Your task to perform on an android device: Find coffee shops on Maps Image 0: 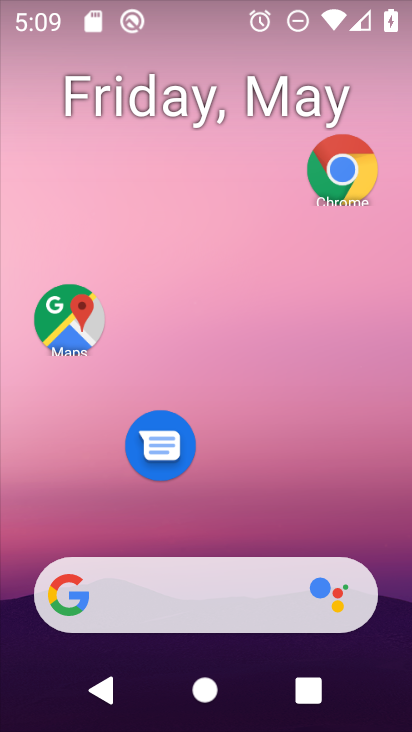
Step 0: click (406, 319)
Your task to perform on an android device: Find coffee shops on Maps Image 1: 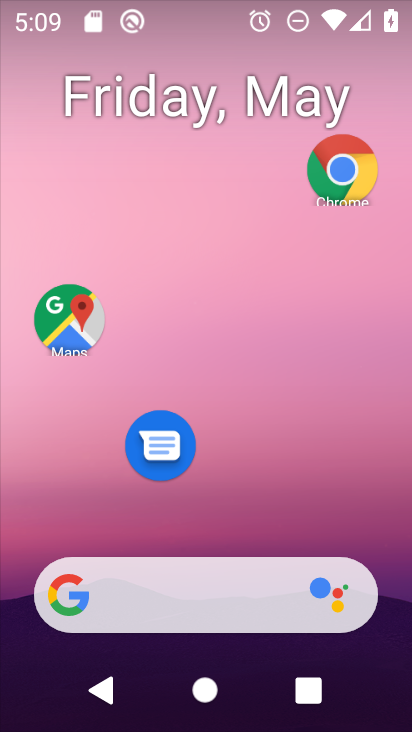
Step 1: drag from (220, 508) to (198, 12)
Your task to perform on an android device: Find coffee shops on Maps Image 2: 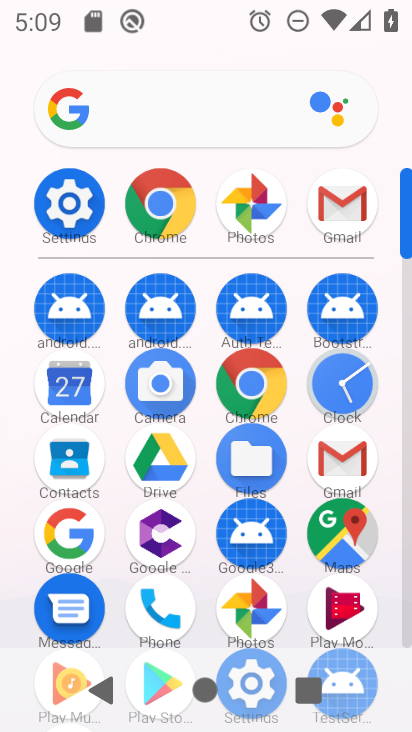
Step 2: click (343, 537)
Your task to perform on an android device: Find coffee shops on Maps Image 3: 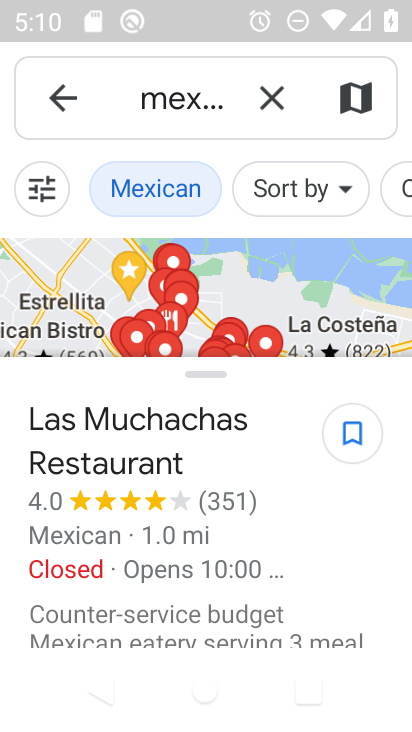
Step 3: click (263, 100)
Your task to perform on an android device: Find coffee shops on Maps Image 4: 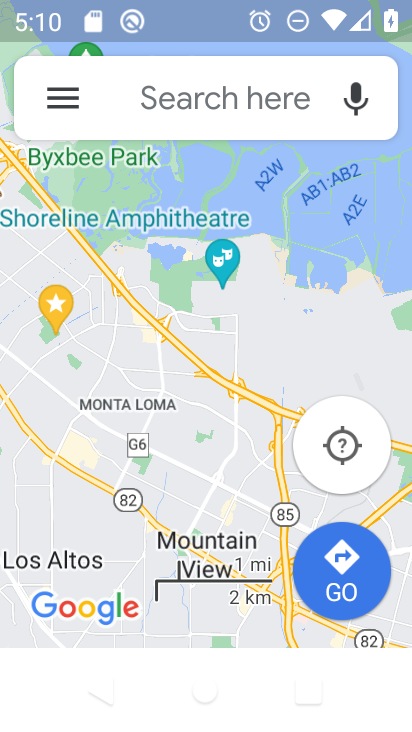
Step 4: click (210, 80)
Your task to perform on an android device: Find coffee shops on Maps Image 5: 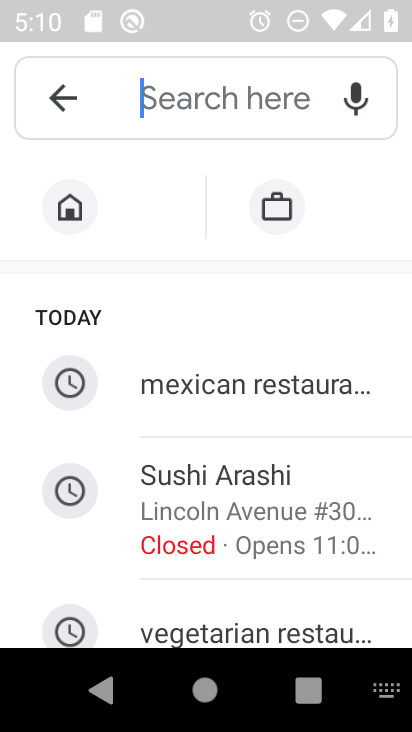
Step 5: drag from (208, 590) to (216, 269)
Your task to perform on an android device: Find coffee shops on Maps Image 6: 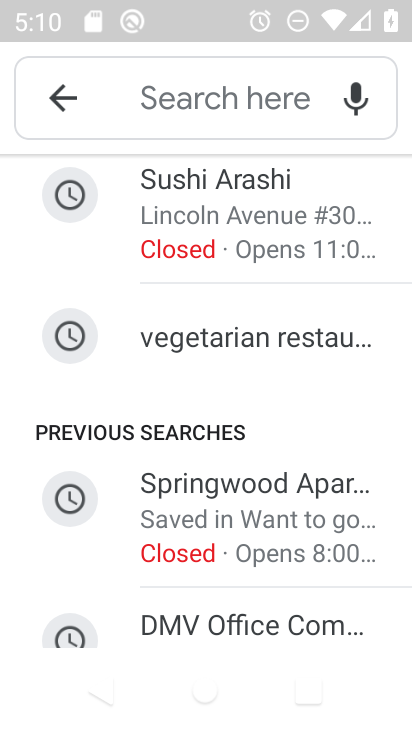
Step 6: click (127, 105)
Your task to perform on an android device: Find coffee shops on Maps Image 7: 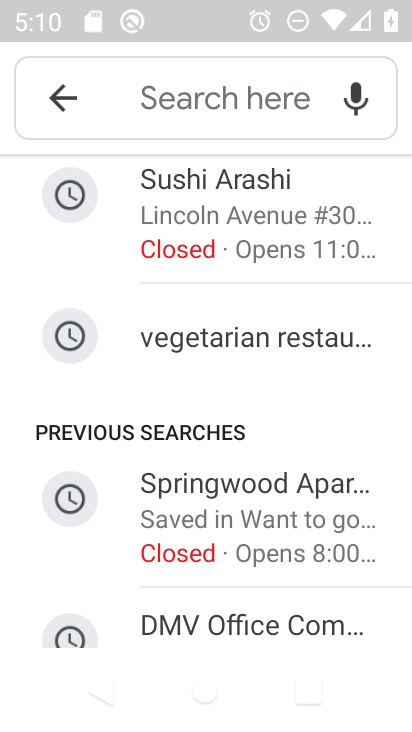
Step 7: click (177, 116)
Your task to perform on an android device: Find coffee shops on Maps Image 8: 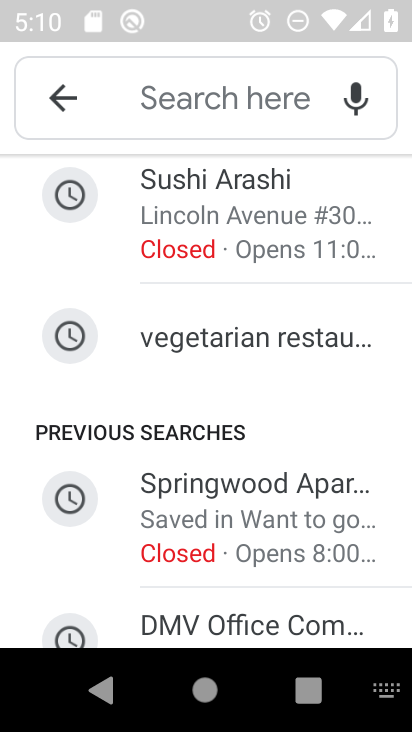
Step 8: type "coffee shops"
Your task to perform on an android device: Find coffee shops on Maps Image 9: 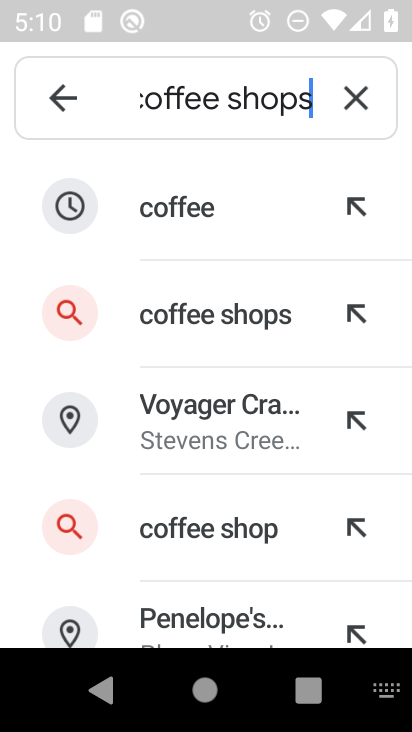
Step 9: click (238, 320)
Your task to perform on an android device: Find coffee shops on Maps Image 10: 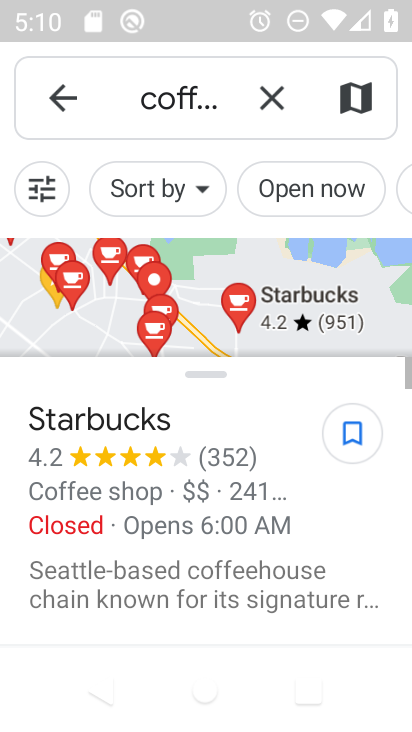
Step 10: task complete